Your task to perform on an android device: Go to settings Image 0: 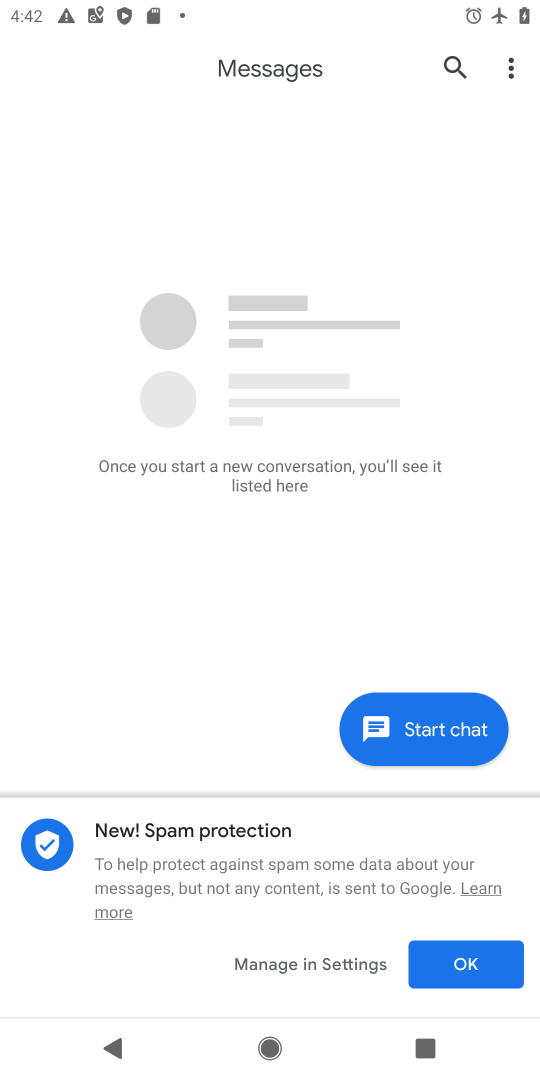
Step 0: press home button
Your task to perform on an android device: Go to settings Image 1: 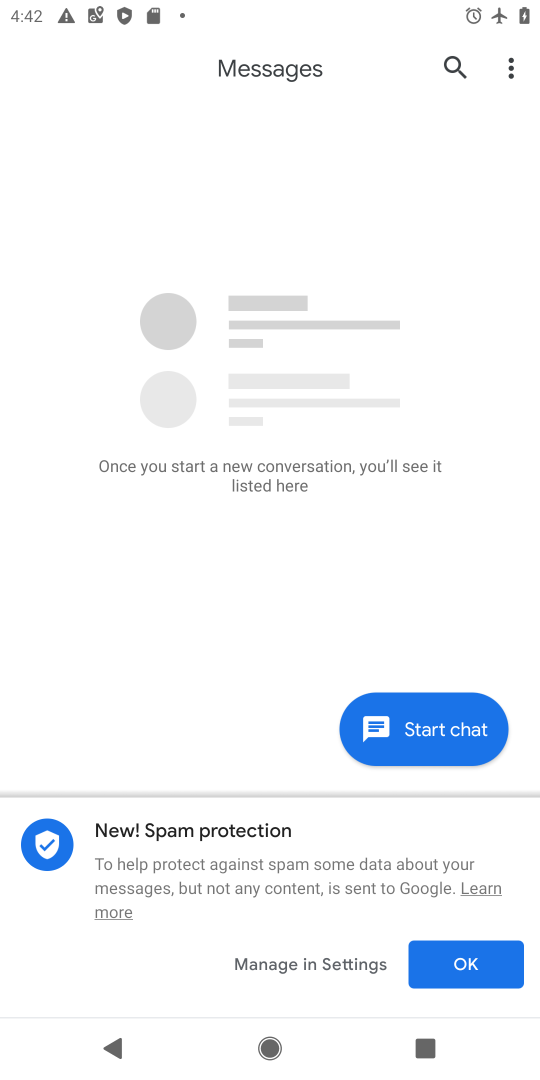
Step 1: press home button
Your task to perform on an android device: Go to settings Image 2: 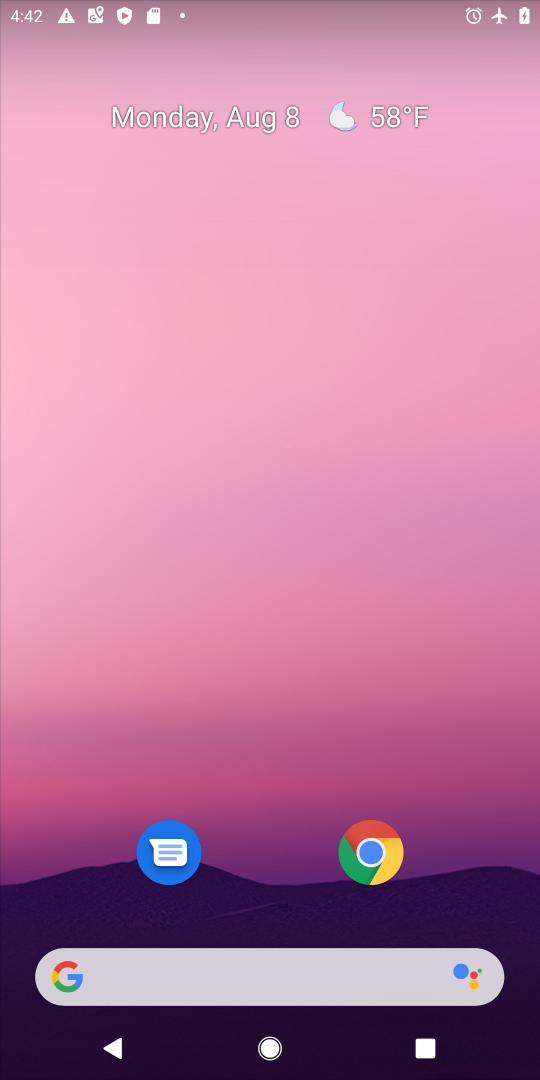
Step 2: drag from (285, 880) to (422, 117)
Your task to perform on an android device: Go to settings Image 3: 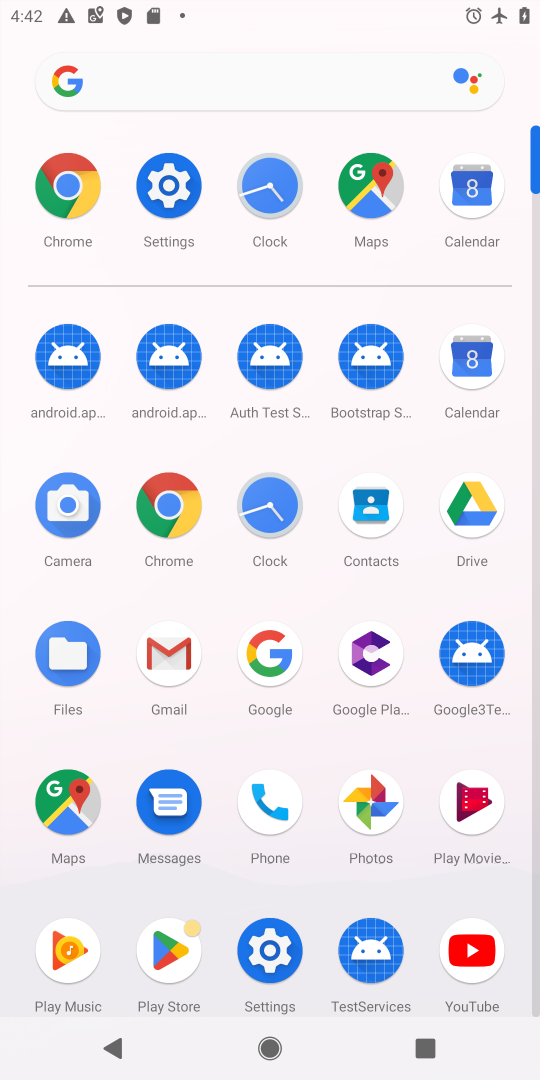
Step 3: click (263, 956)
Your task to perform on an android device: Go to settings Image 4: 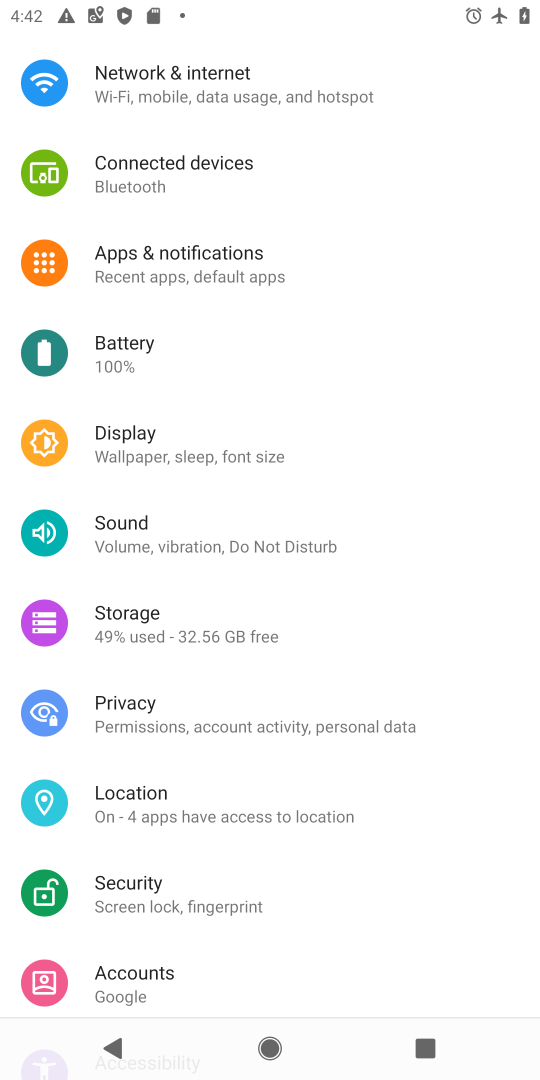
Step 4: task complete